Your task to perform on an android device: Open accessibility settings Image 0: 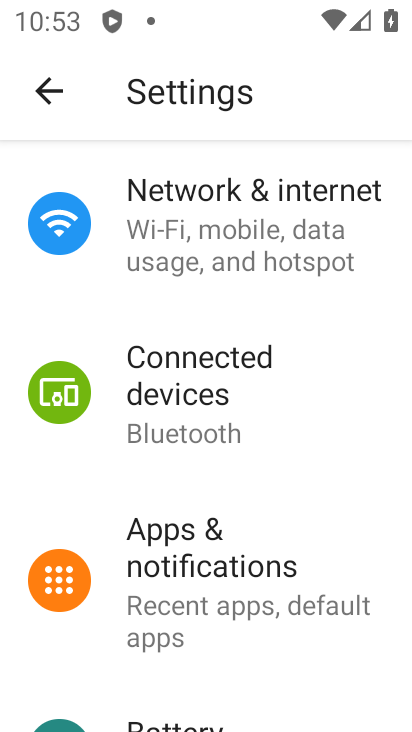
Step 0: drag from (304, 628) to (230, 51)
Your task to perform on an android device: Open accessibility settings Image 1: 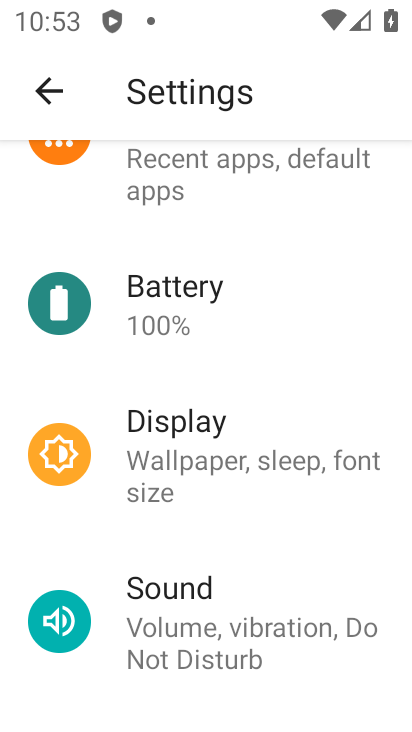
Step 1: drag from (125, 571) to (232, 96)
Your task to perform on an android device: Open accessibility settings Image 2: 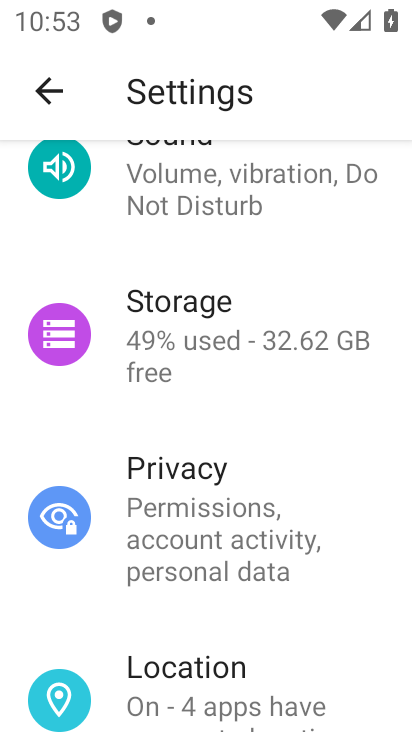
Step 2: click (202, 36)
Your task to perform on an android device: Open accessibility settings Image 3: 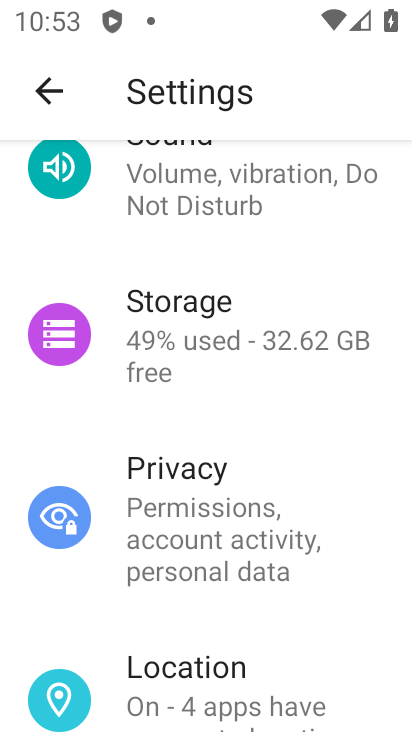
Step 3: drag from (253, 633) to (349, 17)
Your task to perform on an android device: Open accessibility settings Image 4: 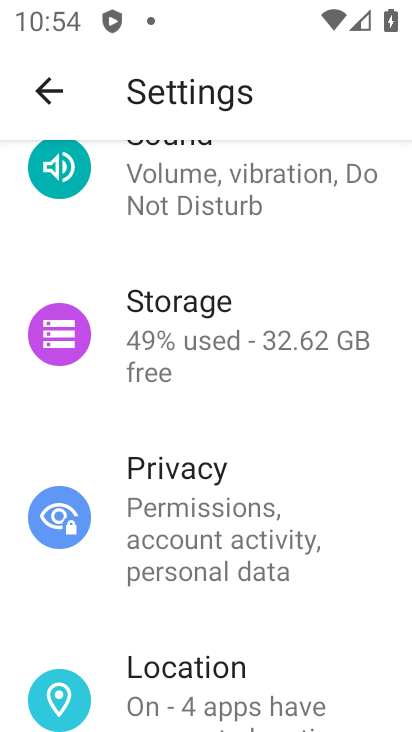
Step 4: drag from (279, 636) to (259, 92)
Your task to perform on an android device: Open accessibility settings Image 5: 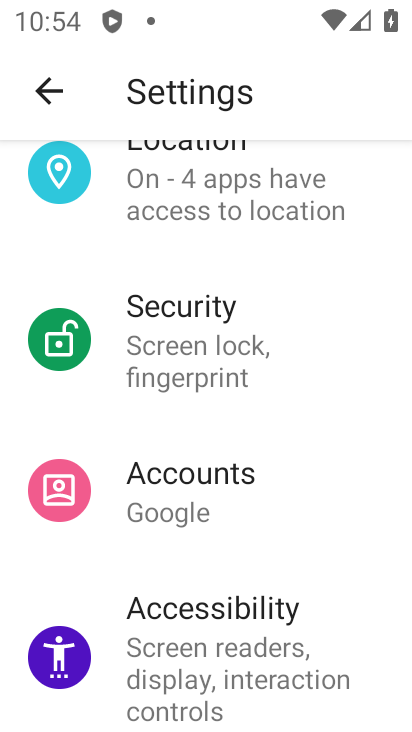
Step 5: click (167, 603)
Your task to perform on an android device: Open accessibility settings Image 6: 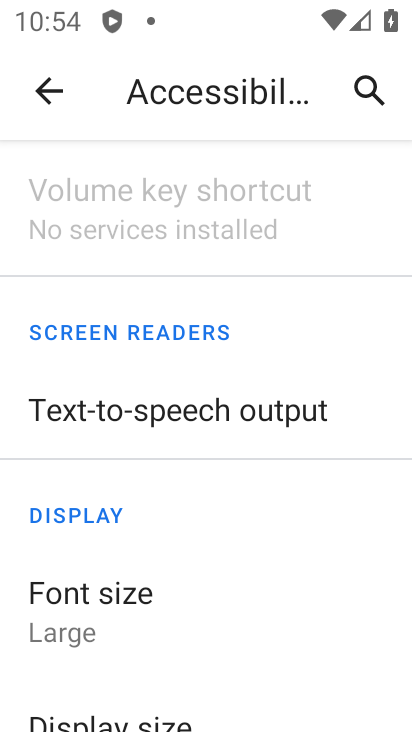
Step 6: task complete